Your task to perform on an android device: Open Wikipedia Image 0: 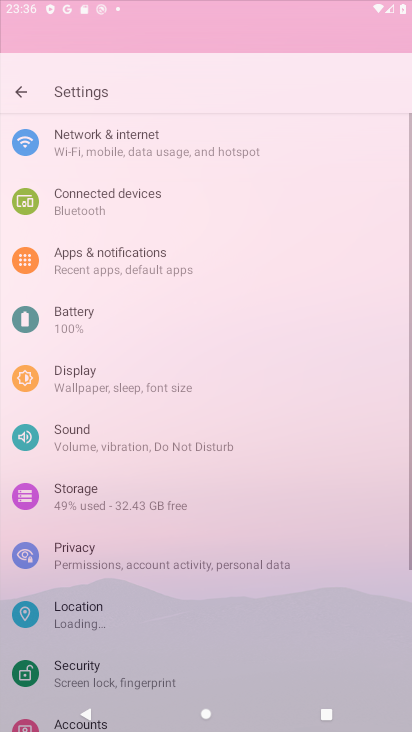
Step 0: press home button
Your task to perform on an android device: Open Wikipedia Image 1: 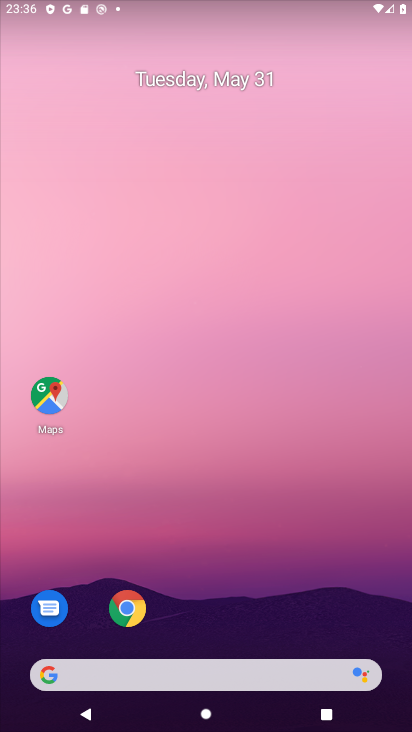
Step 1: press home button
Your task to perform on an android device: Open Wikipedia Image 2: 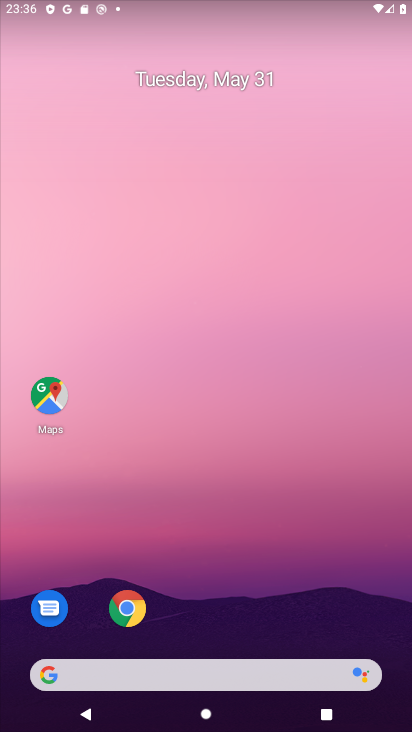
Step 2: click (131, 607)
Your task to perform on an android device: Open Wikipedia Image 3: 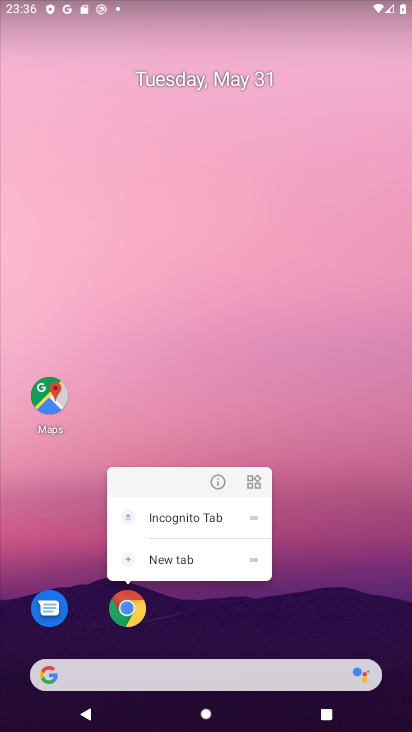
Step 3: click (108, 619)
Your task to perform on an android device: Open Wikipedia Image 4: 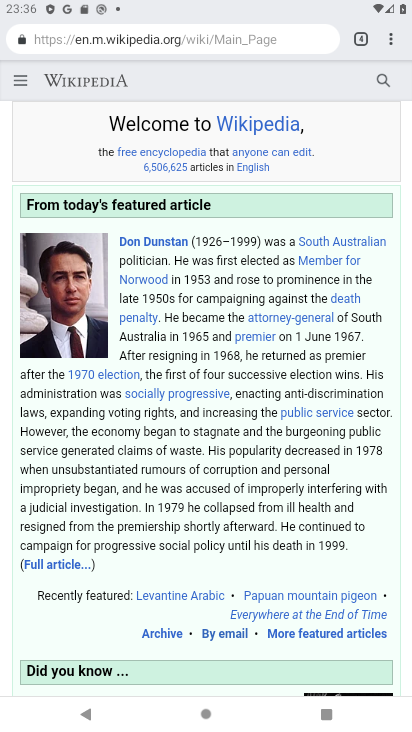
Step 4: task complete